Your task to perform on an android device: find snoozed emails in the gmail app Image 0: 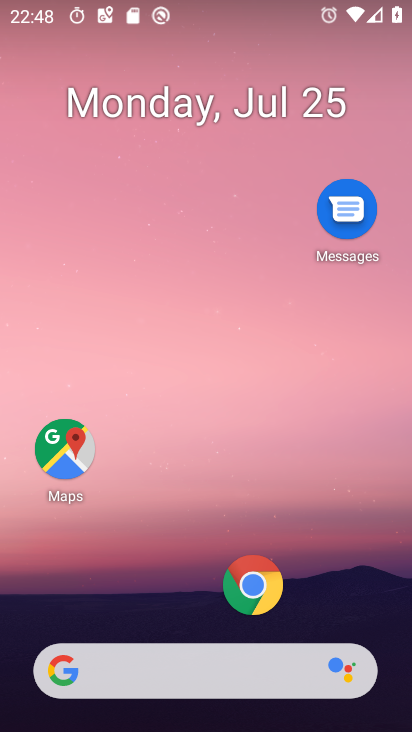
Step 0: press home button
Your task to perform on an android device: find snoozed emails in the gmail app Image 1: 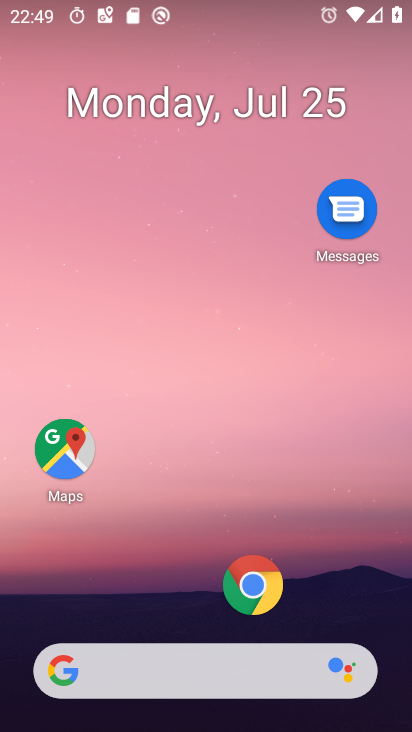
Step 1: drag from (170, 681) to (283, 89)
Your task to perform on an android device: find snoozed emails in the gmail app Image 2: 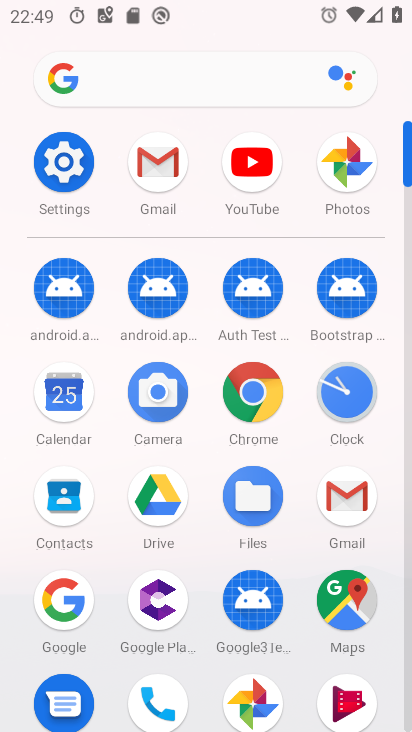
Step 2: click (159, 172)
Your task to perform on an android device: find snoozed emails in the gmail app Image 3: 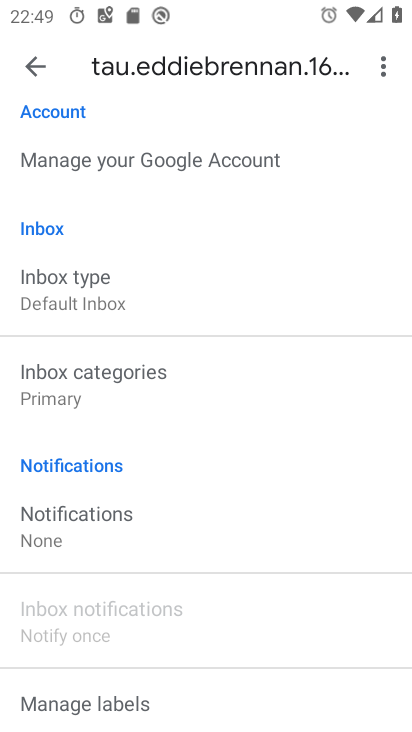
Step 3: click (31, 85)
Your task to perform on an android device: find snoozed emails in the gmail app Image 4: 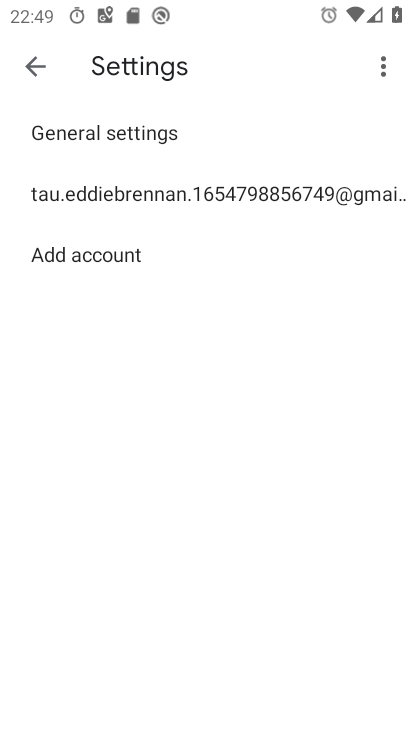
Step 4: click (32, 79)
Your task to perform on an android device: find snoozed emails in the gmail app Image 5: 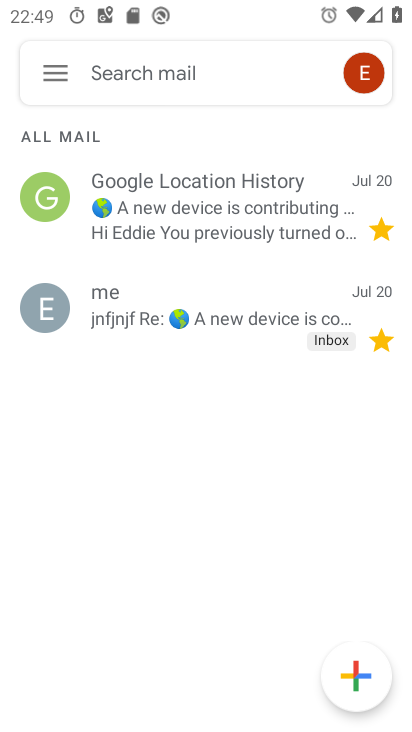
Step 5: click (54, 78)
Your task to perform on an android device: find snoozed emails in the gmail app Image 6: 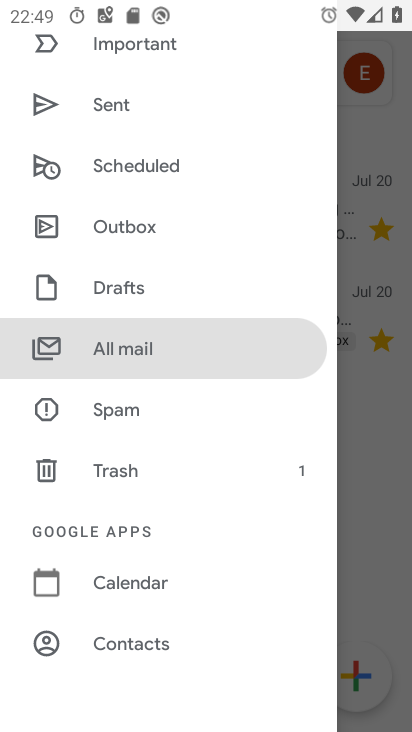
Step 6: drag from (233, 139) to (194, 554)
Your task to perform on an android device: find snoozed emails in the gmail app Image 7: 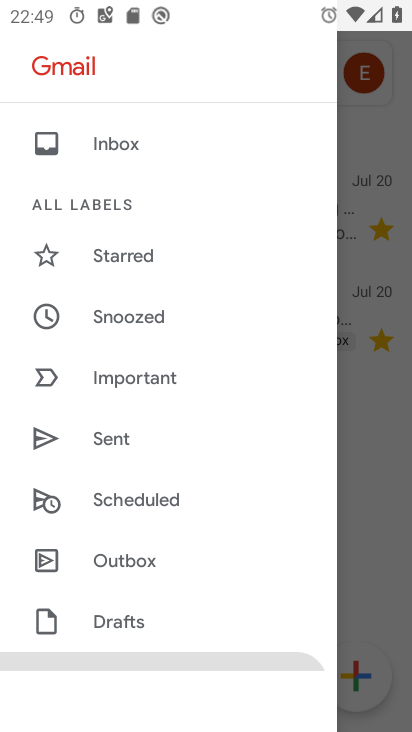
Step 7: click (129, 322)
Your task to perform on an android device: find snoozed emails in the gmail app Image 8: 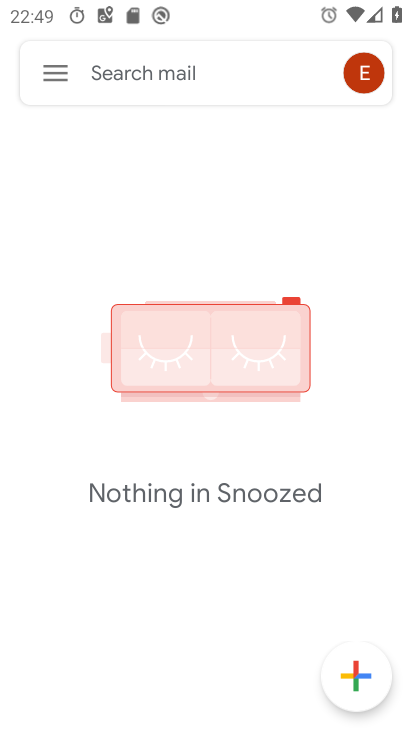
Step 8: task complete